Your task to perform on an android device: clear all cookies in the chrome app Image 0: 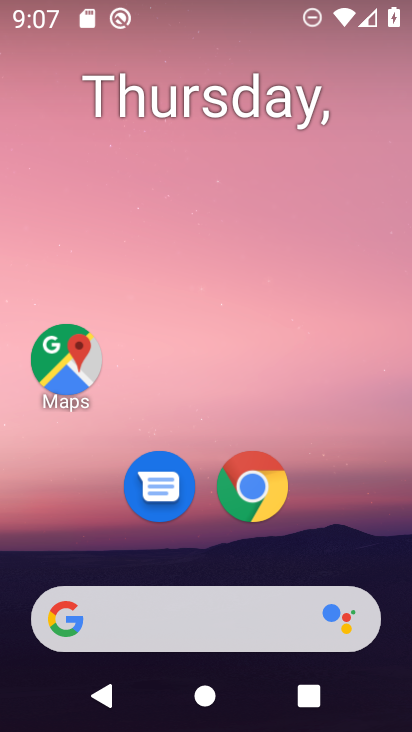
Step 0: click (256, 480)
Your task to perform on an android device: clear all cookies in the chrome app Image 1: 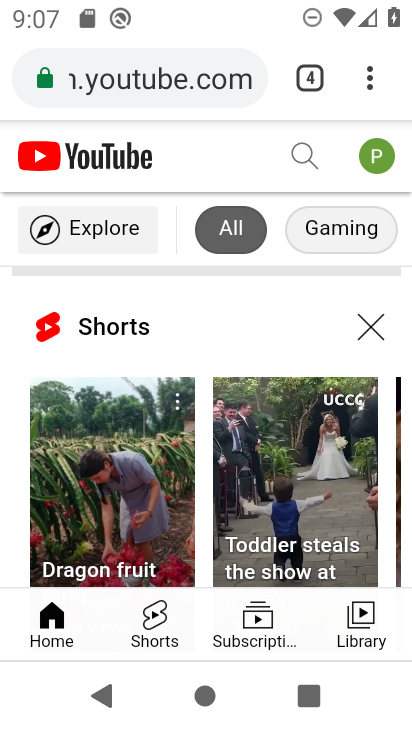
Step 1: drag from (361, 77) to (103, 543)
Your task to perform on an android device: clear all cookies in the chrome app Image 2: 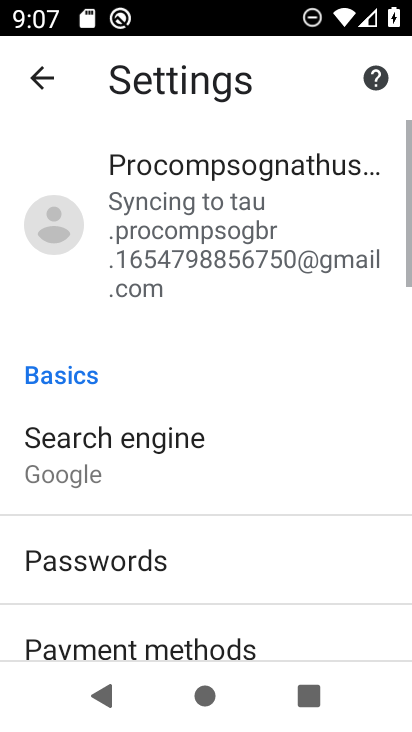
Step 2: drag from (105, 566) to (214, 178)
Your task to perform on an android device: clear all cookies in the chrome app Image 3: 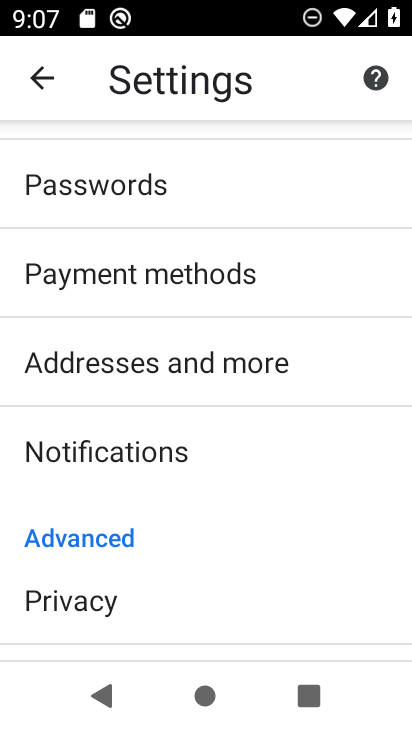
Step 3: click (37, 73)
Your task to perform on an android device: clear all cookies in the chrome app Image 4: 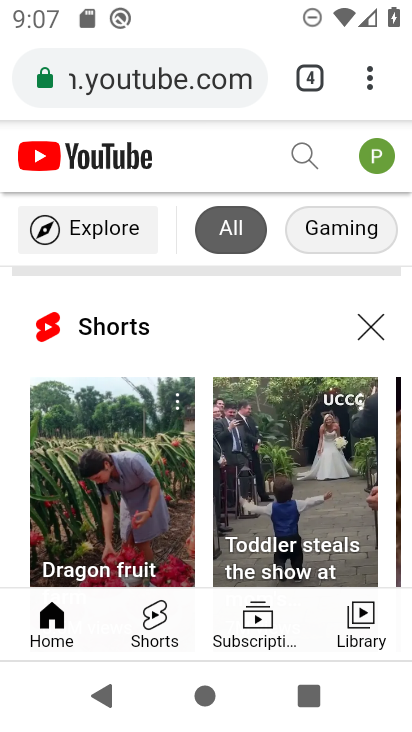
Step 4: drag from (374, 77) to (164, 442)
Your task to perform on an android device: clear all cookies in the chrome app Image 5: 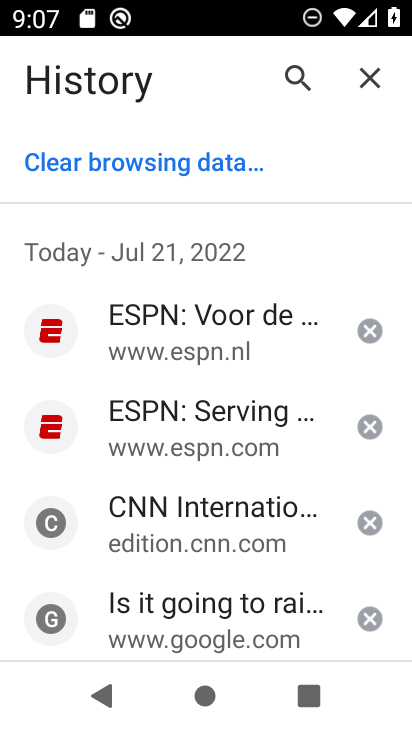
Step 5: click (131, 164)
Your task to perform on an android device: clear all cookies in the chrome app Image 6: 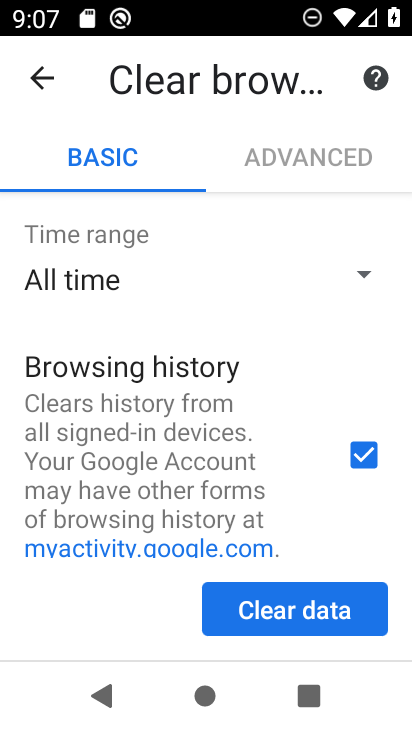
Step 6: click (374, 448)
Your task to perform on an android device: clear all cookies in the chrome app Image 7: 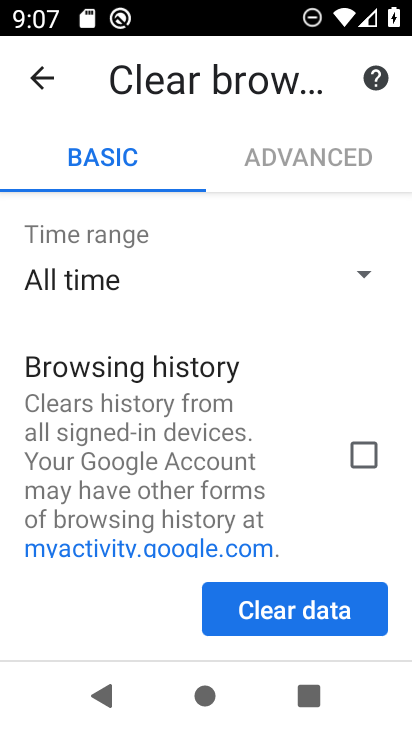
Step 7: drag from (208, 525) to (255, 133)
Your task to perform on an android device: clear all cookies in the chrome app Image 8: 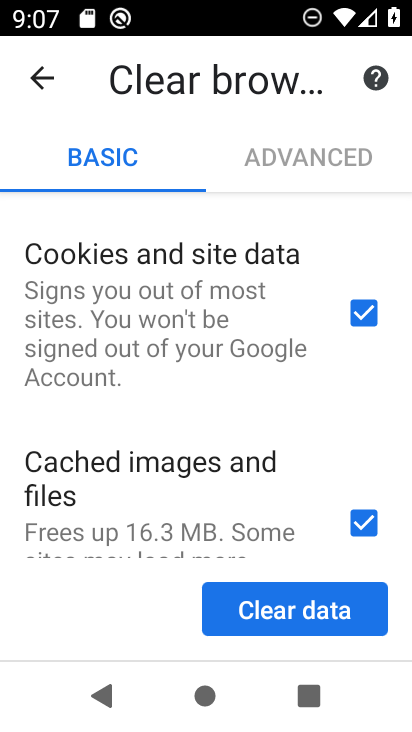
Step 8: click (102, 580)
Your task to perform on an android device: clear all cookies in the chrome app Image 9: 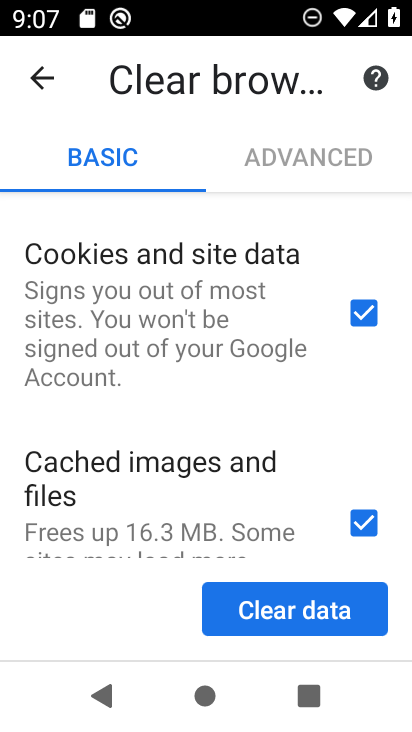
Step 9: click (353, 520)
Your task to perform on an android device: clear all cookies in the chrome app Image 10: 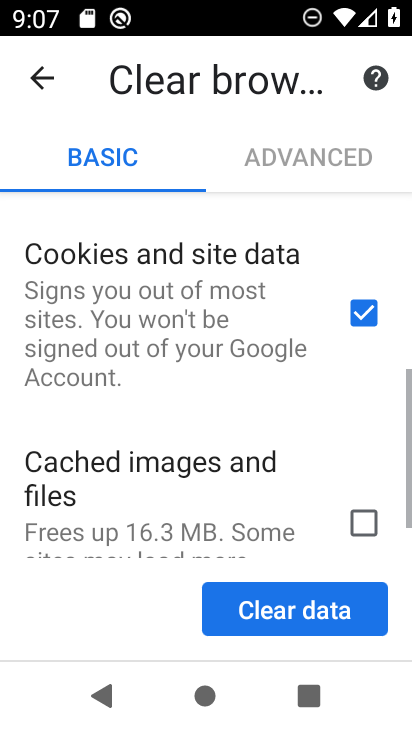
Step 10: click (275, 630)
Your task to perform on an android device: clear all cookies in the chrome app Image 11: 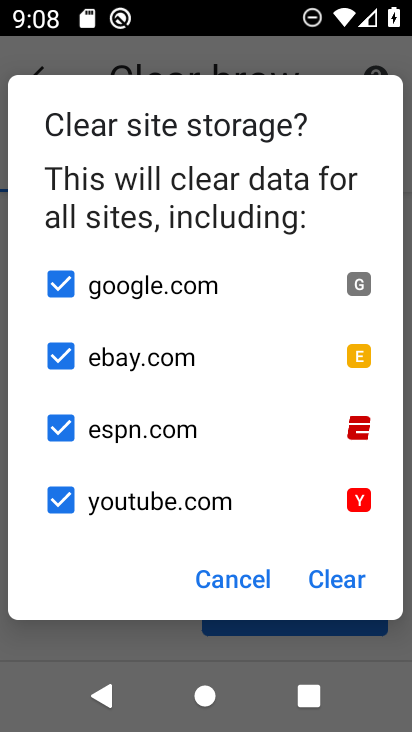
Step 11: click (335, 576)
Your task to perform on an android device: clear all cookies in the chrome app Image 12: 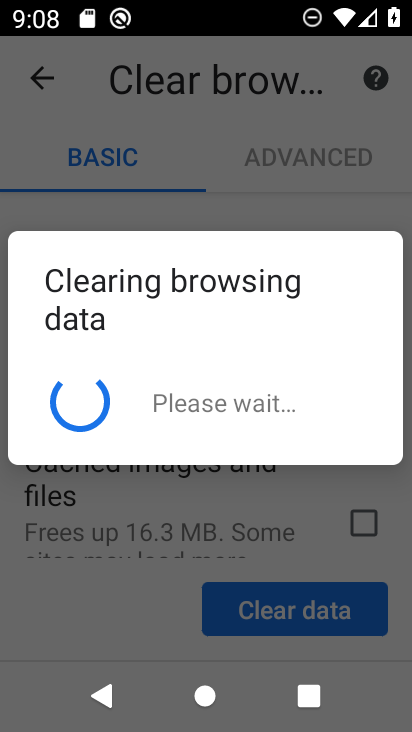
Step 12: task complete